Your task to perform on an android device: turn on improve location accuracy Image 0: 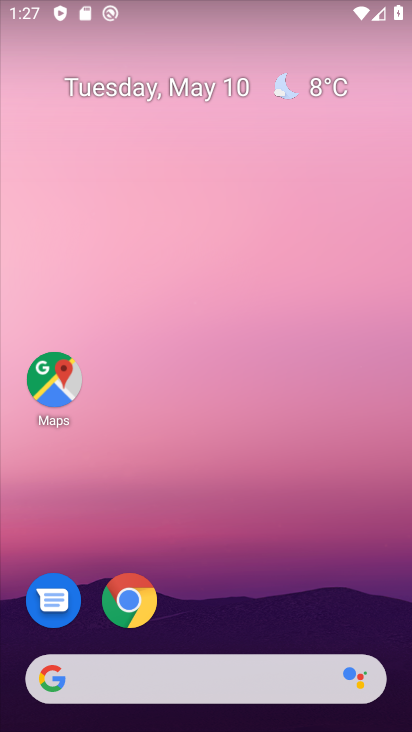
Step 0: drag from (201, 620) to (261, 49)
Your task to perform on an android device: turn on improve location accuracy Image 1: 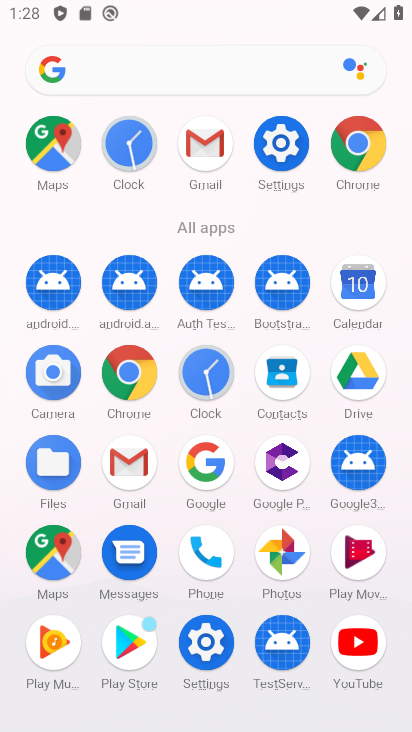
Step 1: click (278, 138)
Your task to perform on an android device: turn on improve location accuracy Image 2: 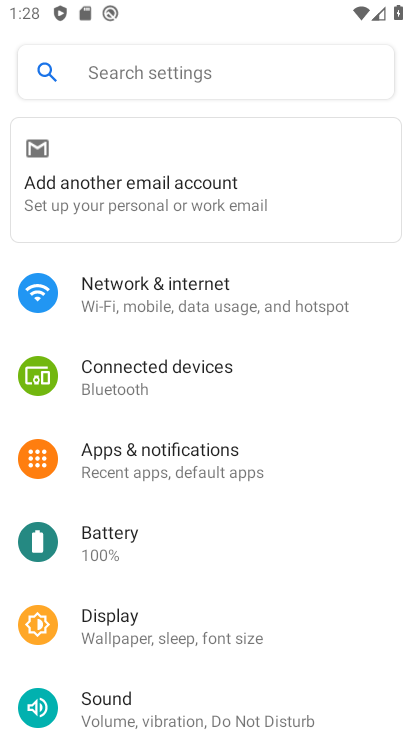
Step 2: drag from (192, 663) to (257, 164)
Your task to perform on an android device: turn on improve location accuracy Image 3: 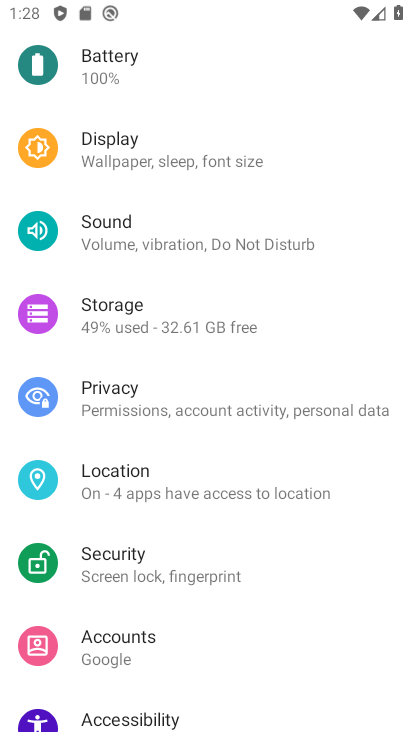
Step 3: click (160, 473)
Your task to perform on an android device: turn on improve location accuracy Image 4: 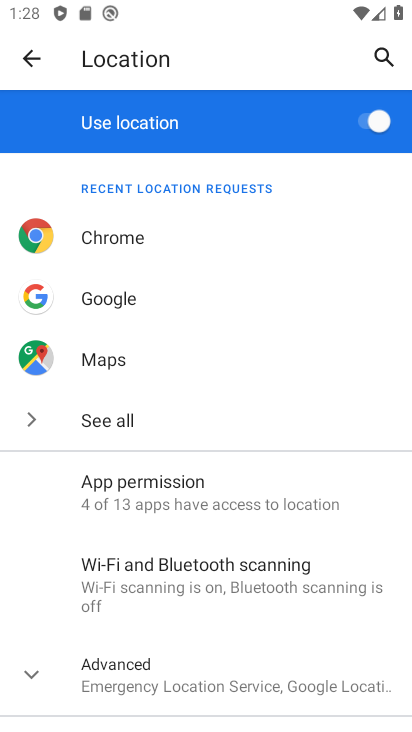
Step 4: click (143, 671)
Your task to perform on an android device: turn on improve location accuracy Image 5: 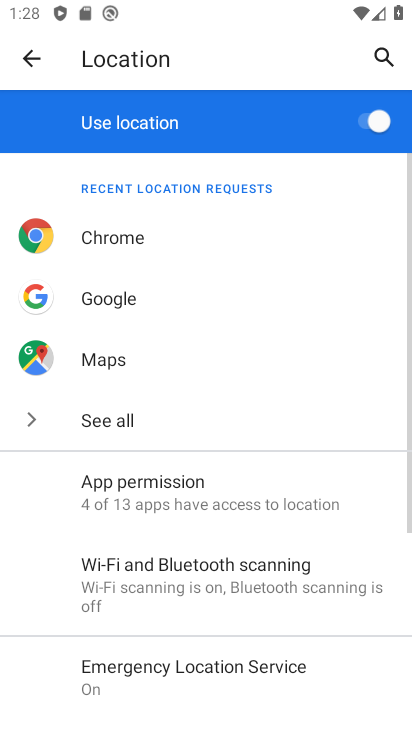
Step 5: drag from (172, 666) to (234, 276)
Your task to perform on an android device: turn on improve location accuracy Image 6: 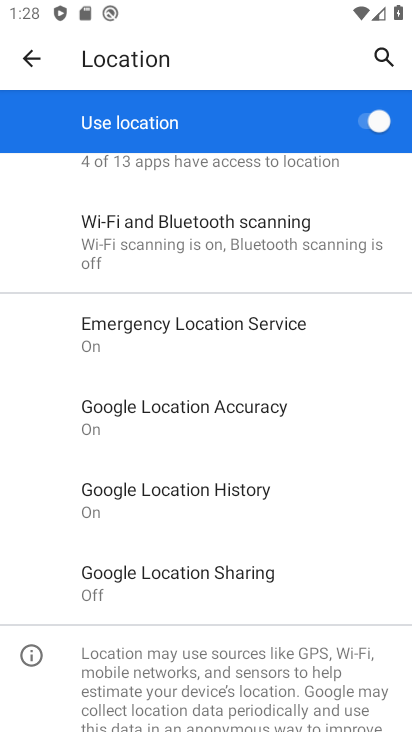
Step 6: click (190, 422)
Your task to perform on an android device: turn on improve location accuracy Image 7: 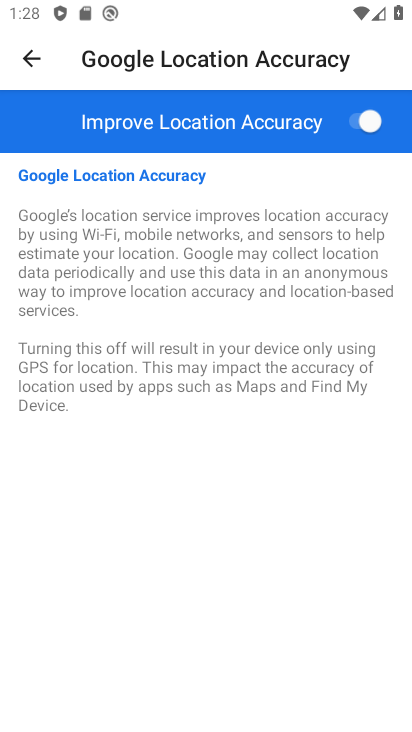
Step 7: task complete